Your task to perform on an android device: Show me popular videos on Youtube Image 0: 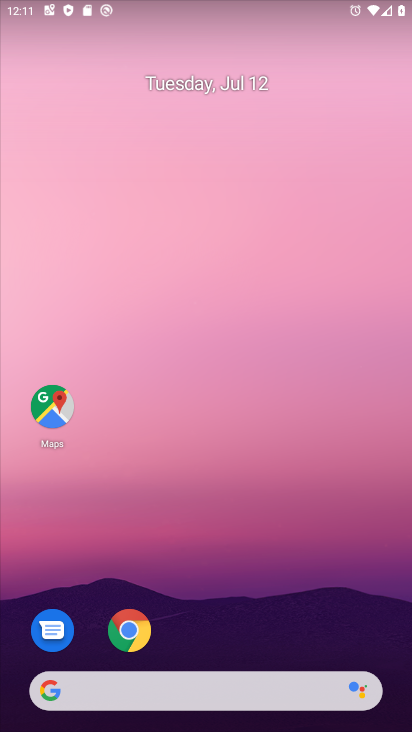
Step 0: drag from (180, 680) to (284, 113)
Your task to perform on an android device: Show me popular videos on Youtube Image 1: 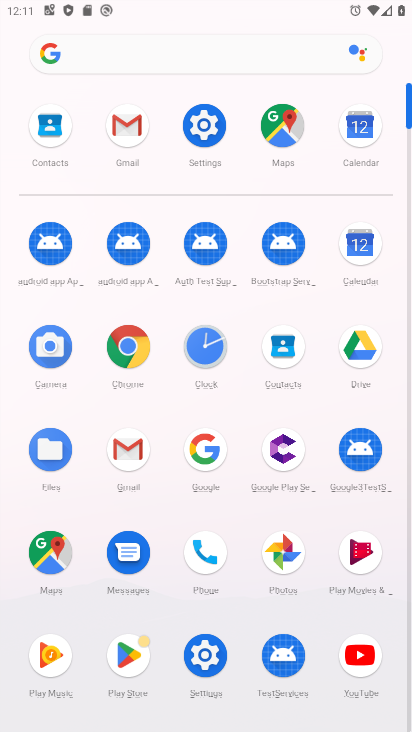
Step 1: click (362, 653)
Your task to perform on an android device: Show me popular videos on Youtube Image 2: 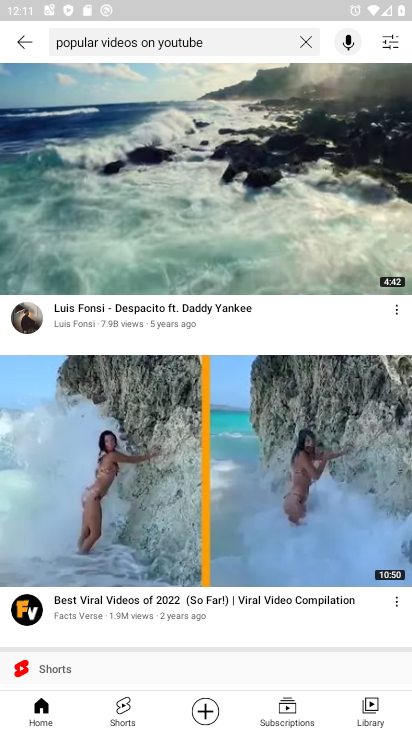
Step 2: click (304, 38)
Your task to perform on an android device: Show me popular videos on Youtube Image 3: 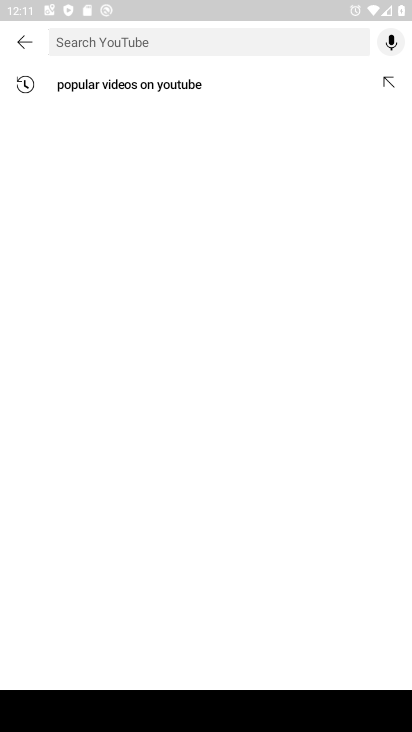
Step 3: type "popular v"
Your task to perform on an android device: Show me popular videos on Youtube Image 4: 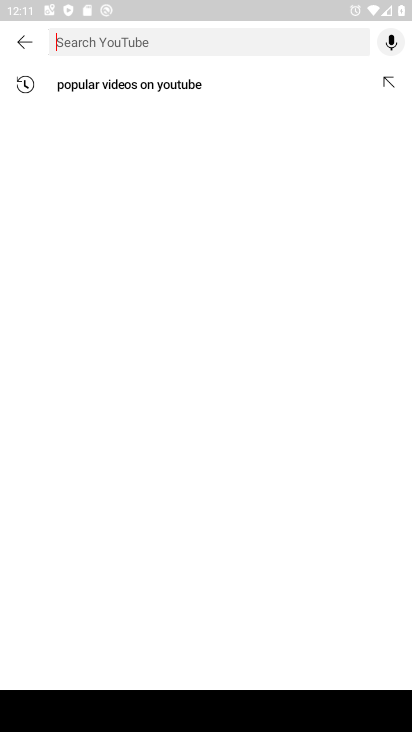
Step 4: click (197, 96)
Your task to perform on an android device: Show me popular videos on Youtube Image 5: 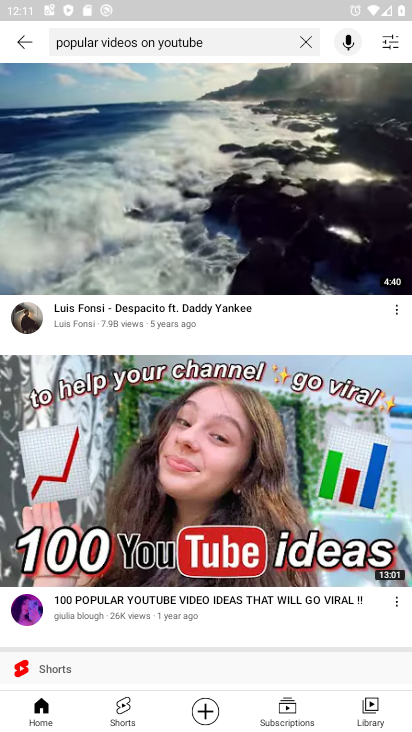
Step 5: task complete